Your task to perform on an android device: View the shopping cart on amazon.com. Add jbl charge 4 to the cart on amazon.com, then select checkout. Image 0: 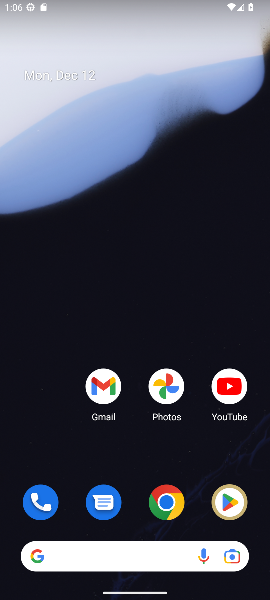
Step 0: click (174, 515)
Your task to perform on an android device: View the shopping cart on amazon.com. Add jbl charge 4 to the cart on amazon.com, then select checkout. Image 1: 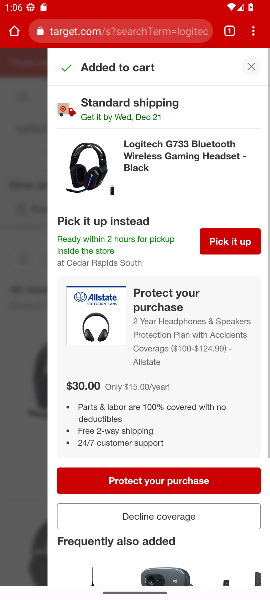
Step 1: click (130, 40)
Your task to perform on an android device: View the shopping cart on amazon.com. Add jbl charge 4 to the cart on amazon.com, then select checkout. Image 2: 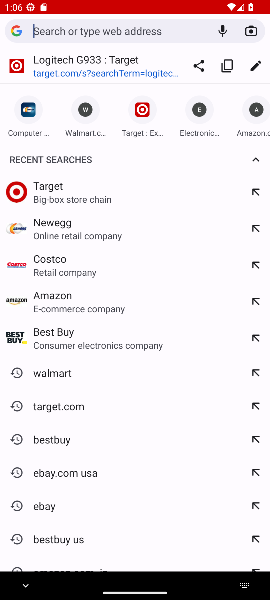
Step 2: click (47, 305)
Your task to perform on an android device: View the shopping cart on amazon.com. Add jbl charge 4 to the cart on amazon.com, then select checkout. Image 3: 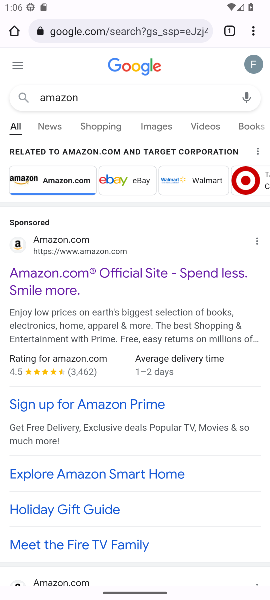
Step 3: click (49, 275)
Your task to perform on an android device: View the shopping cart on amazon.com. Add jbl charge 4 to the cart on amazon.com, then select checkout. Image 4: 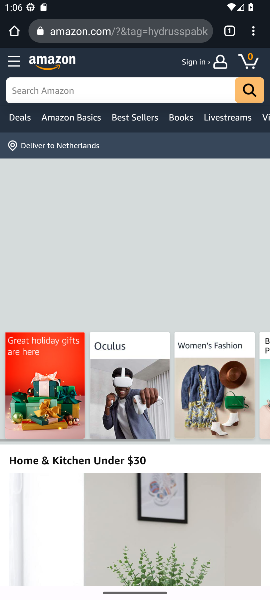
Step 4: click (93, 90)
Your task to perform on an android device: View the shopping cart on amazon.com. Add jbl charge 4 to the cart on amazon.com, then select checkout. Image 5: 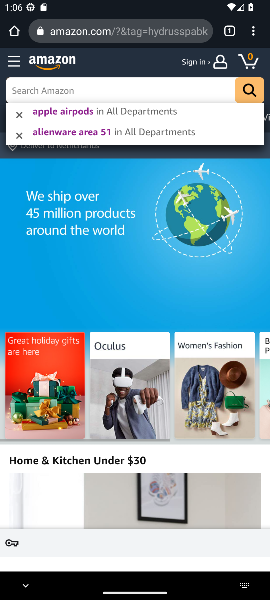
Step 5: type "jbl chage 4"
Your task to perform on an android device: View the shopping cart on amazon.com. Add jbl charge 4 to the cart on amazon.com, then select checkout. Image 6: 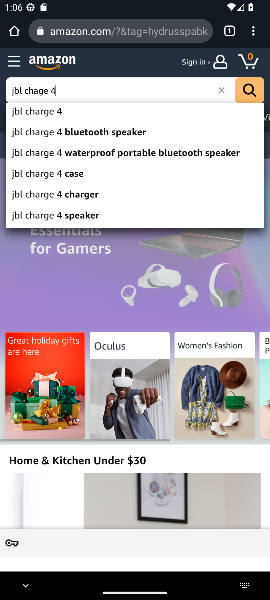
Step 6: click (249, 99)
Your task to perform on an android device: View the shopping cart on amazon.com. Add jbl charge 4 to the cart on amazon.com, then select checkout. Image 7: 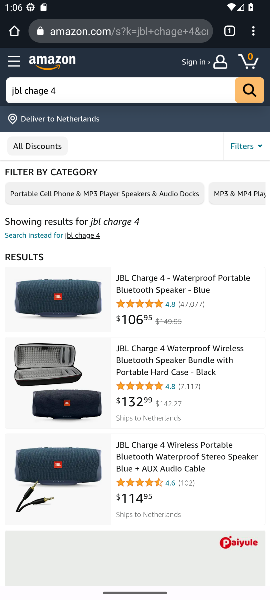
Step 7: click (157, 298)
Your task to perform on an android device: View the shopping cart on amazon.com. Add jbl charge 4 to the cart on amazon.com, then select checkout. Image 8: 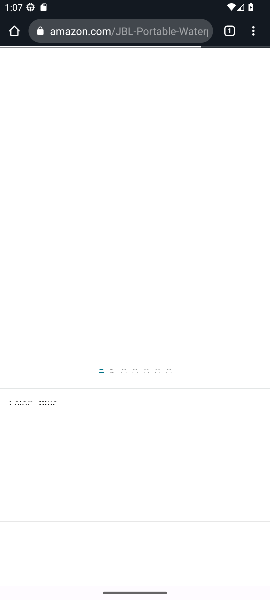
Step 8: drag from (150, 463) to (171, 278)
Your task to perform on an android device: View the shopping cart on amazon.com. Add jbl charge 4 to the cart on amazon.com, then select checkout. Image 9: 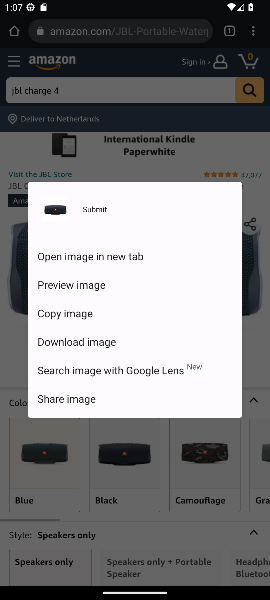
Step 9: click (135, 437)
Your task to perform on an android device: View the shopping cart on amazon.com. Add jbl charge 4 to the cart on amazon.com, then select checkout. Image 10: 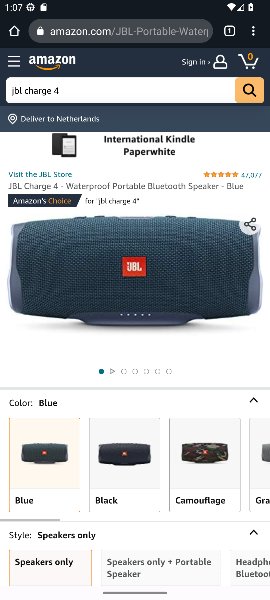
Step 10: drag from (149, 528) to (143, 464)
Your task to perform on an android device: View the shopping cart on amazon.com. Add jbl charge 4 to the cart on amazon.com, then select checkout. Image 11: 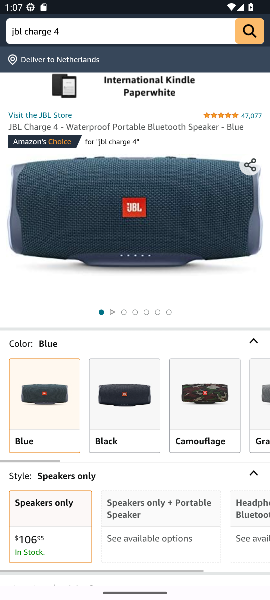
Step 11: drag from (136, 483) to (140, 432)
Your task to perform on an android device: View the shopping cart on amazon.com. Add jbl charge 4 to the cart on amazon.com, then select checkout. Image 12: 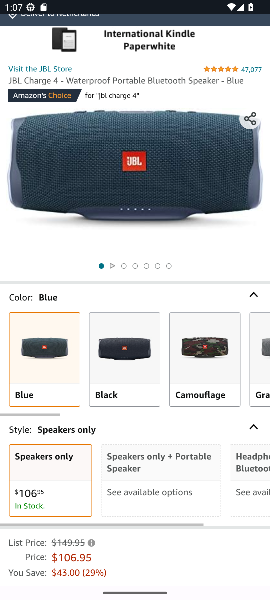
Step 12: drag from (137, 552) to (137, 387)
Your task to perform on an android device: View the shopping cart on amazon.com. Add jbl charge 4 to the cart on amazon.com, then select checkout. Image 13: 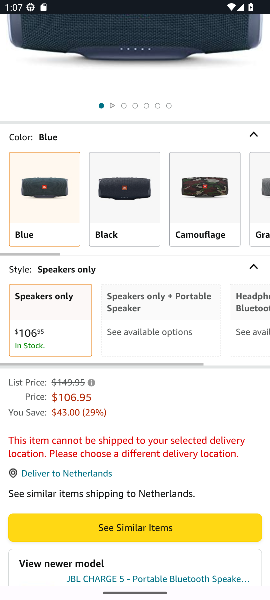
Step 13: click (141, 516)
Your task to perform on an android device: View the shopping cart on amazon.com. Add jbl charge 4 to the cart on amazon.com, then select checkout. Image 14: 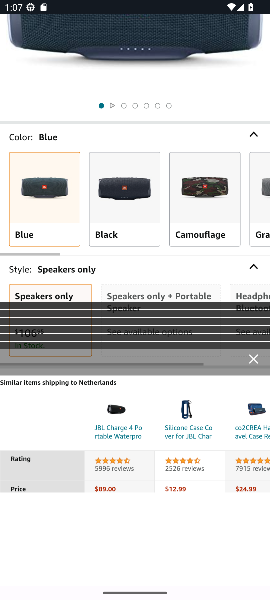
Step 14: task complete